Your task to perform on an android device: turn on notifications settings in the gmail app Image 0: 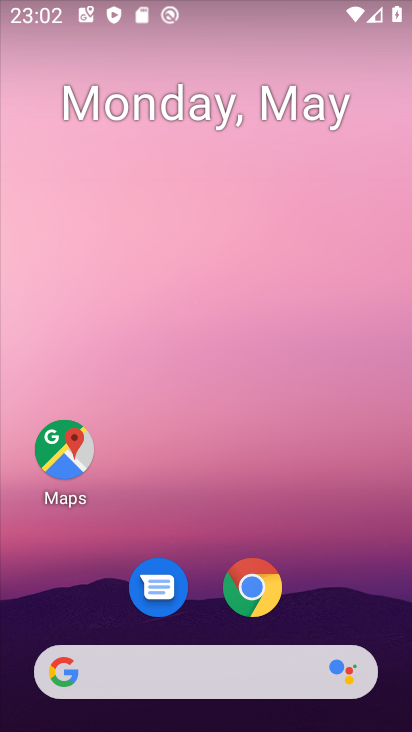
Step 0: drag from (210, 623) to (122, 83)
Your task to perform on an android device: turn on notifications settings in the gmail app Image 1: 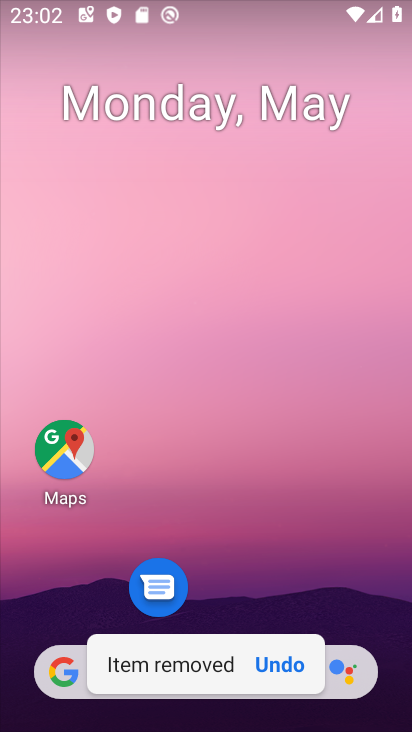
Step 1: drag from (224, 595) to (202, 15)
Your task to perform on an android device: turn on notifications settings in the gmail app Image 2: 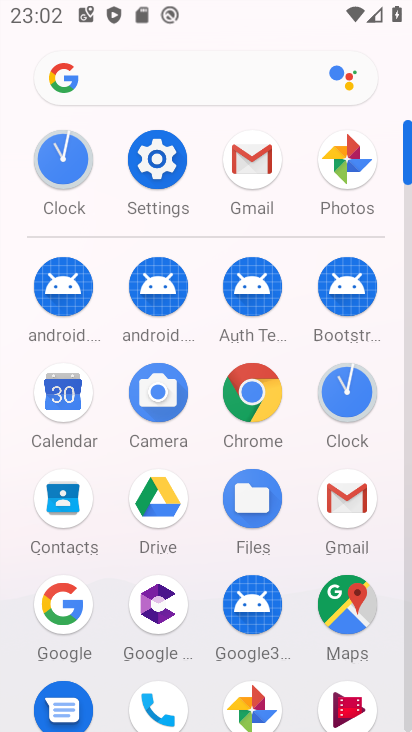
Step 2: click (351, 516)
Your task to perform on an android device: turn on notifications settings in the gmail app Image 3: 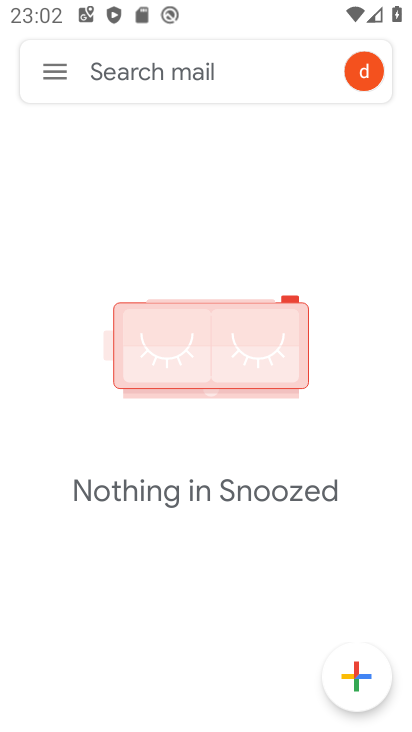
Step 3: click (54, 73)
Your task to perform on an android device: turn on notifications settings in the gmail app Image 4: 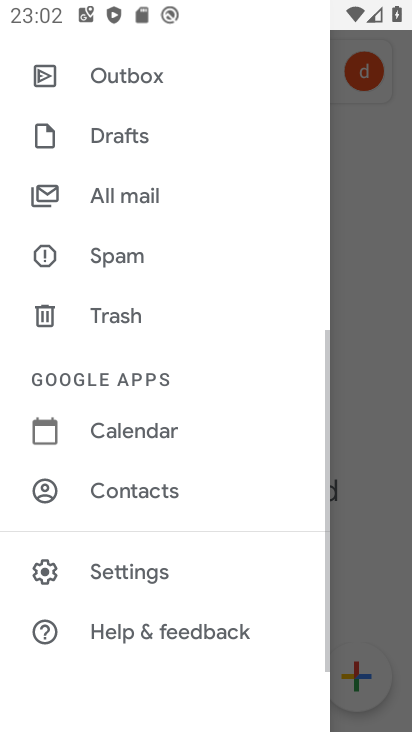
Step 4: click (121, 556)
Your task to perform on an android device: turn on notifications settings in the gmail app Image 5: 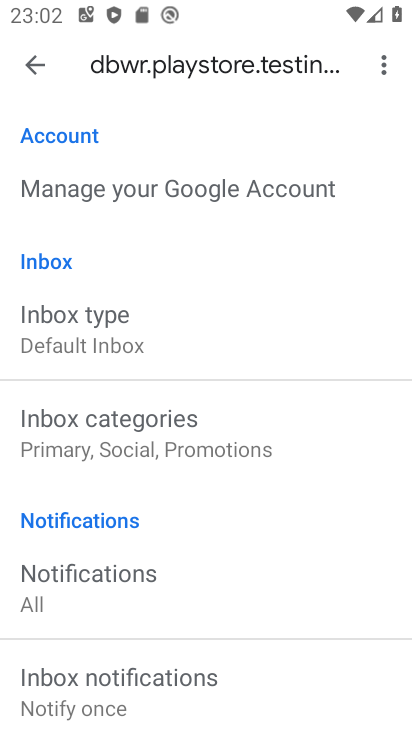
Step 5: click (37, 65)
Your task to perform on an android device: turn on notifications settings in the gmail app Image 6: 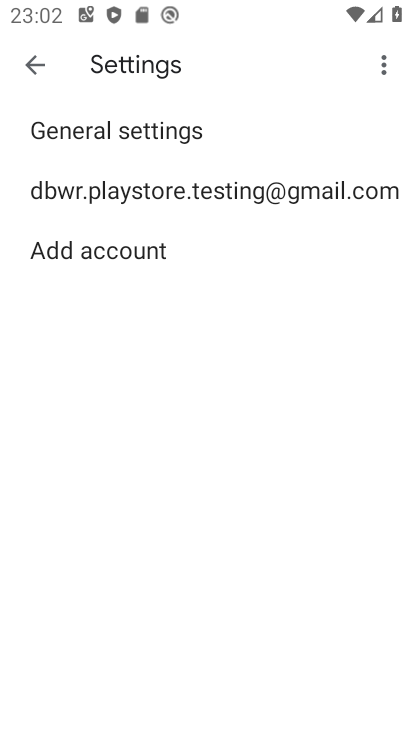
Step 6: click (82, 121)
Your task to perform on an android device: turn on notifications settings in the gmail app Image 7: 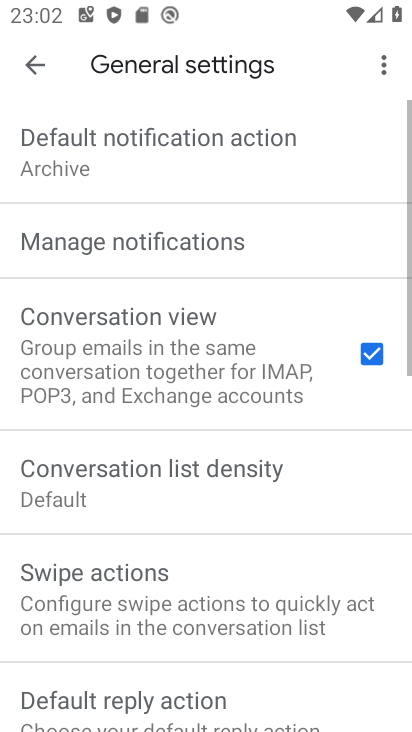
Step 7: click (117, 240)
Your task to perform on an android device: turn on notifications settings in the gmail app Image 8: 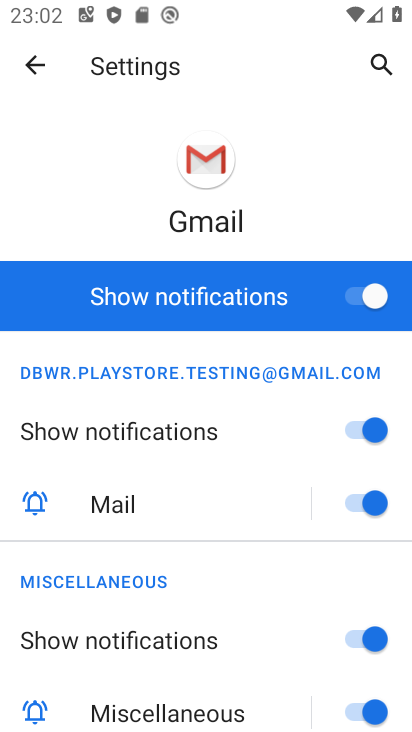
Step 8: task complete